Your task to perform on an android device: turn on bluetooth scan Image 0: 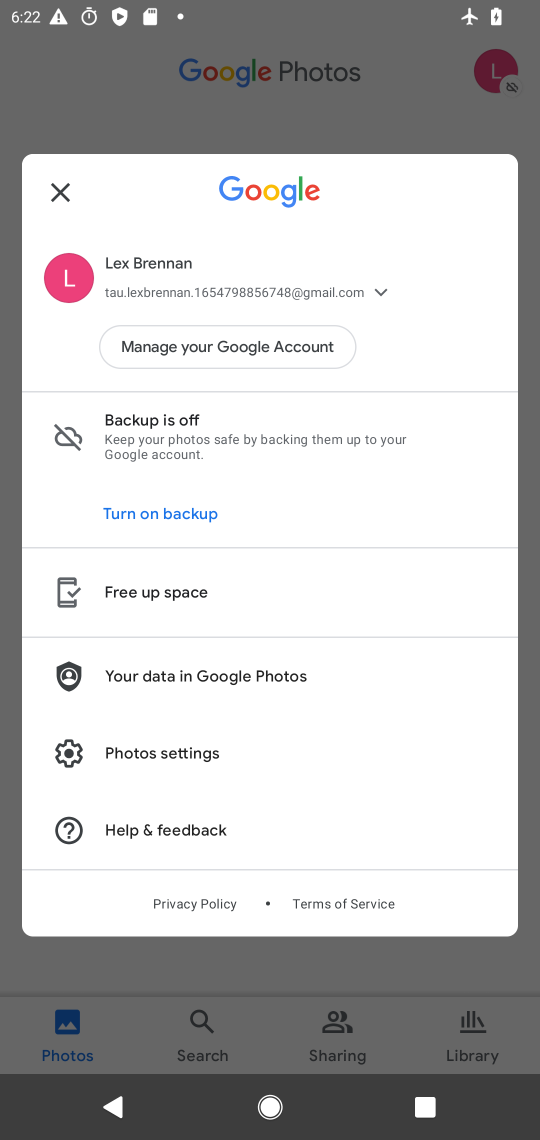
Step 0: press home button
Your task to perform on an android device: turn on bluetooth scan Image 1: 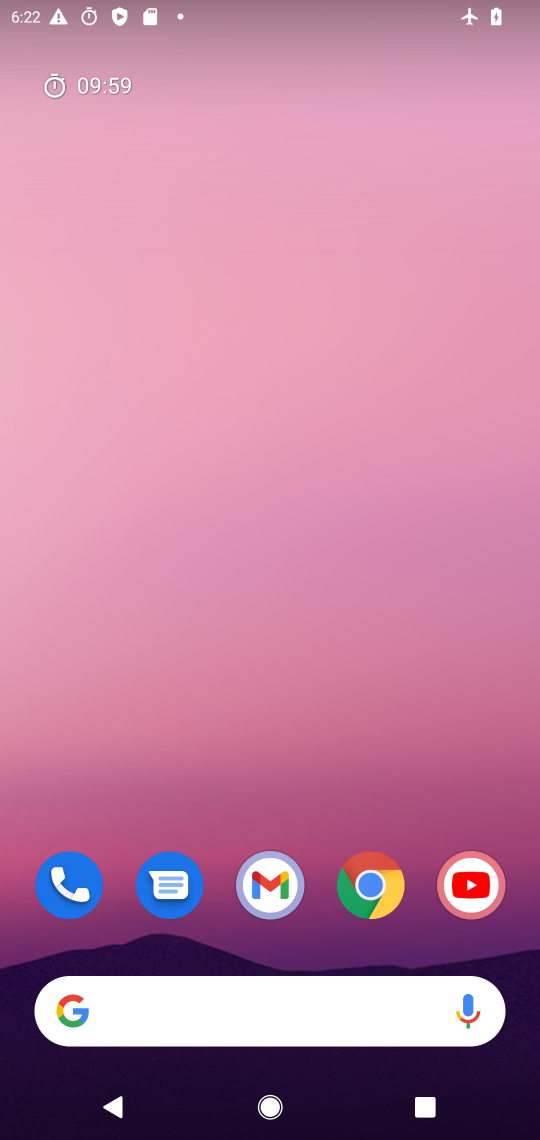
Step 1: drag from (273, 894) to (352, 194)
Your task to perform on an android device: turn on bluetooth scan Image 2: 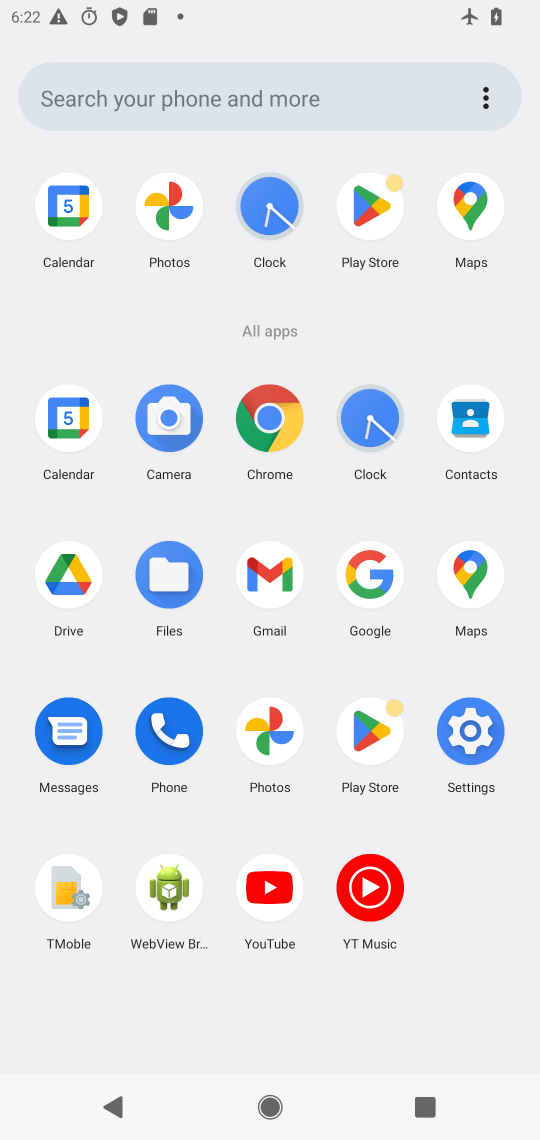
Step 2: click (482, 747)
Your task to perform on an android device: turn on bluetooth scan Image 3: 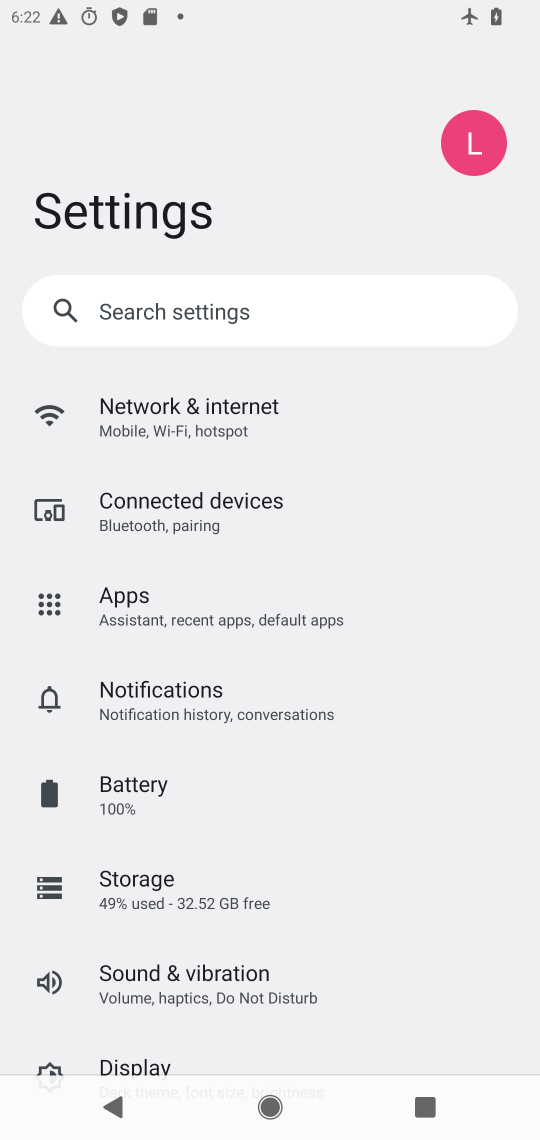
Step 3: drag from (191, 969) to (209, 513)
Your task to perform on an android device: turn on bluetooth scan Image 4: 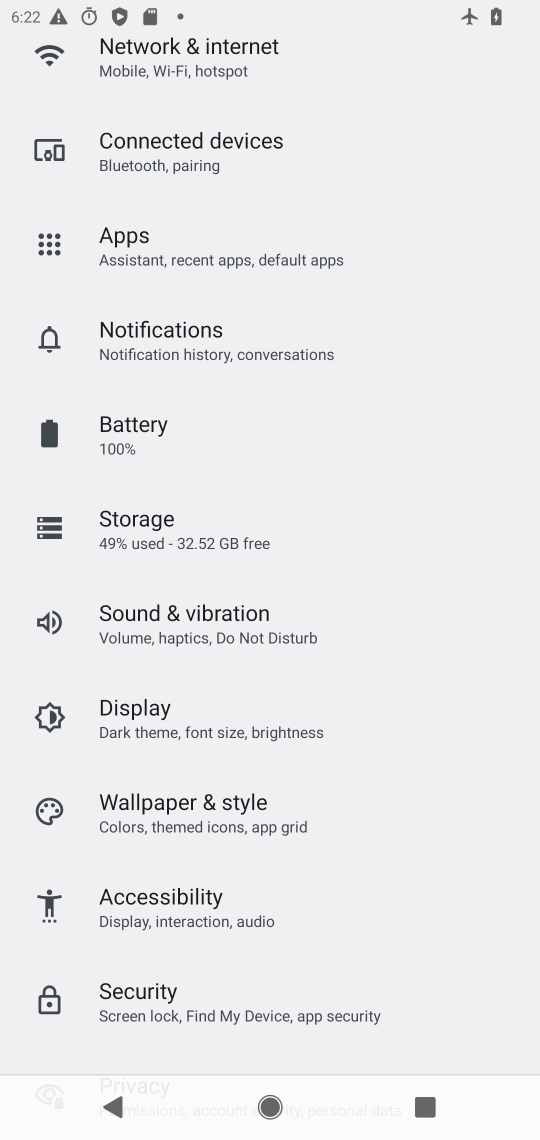
Step 4: drag from (220, 918) to (224, 521)
Your task to perform on an android device: turn on bluetooth scan Image 5: 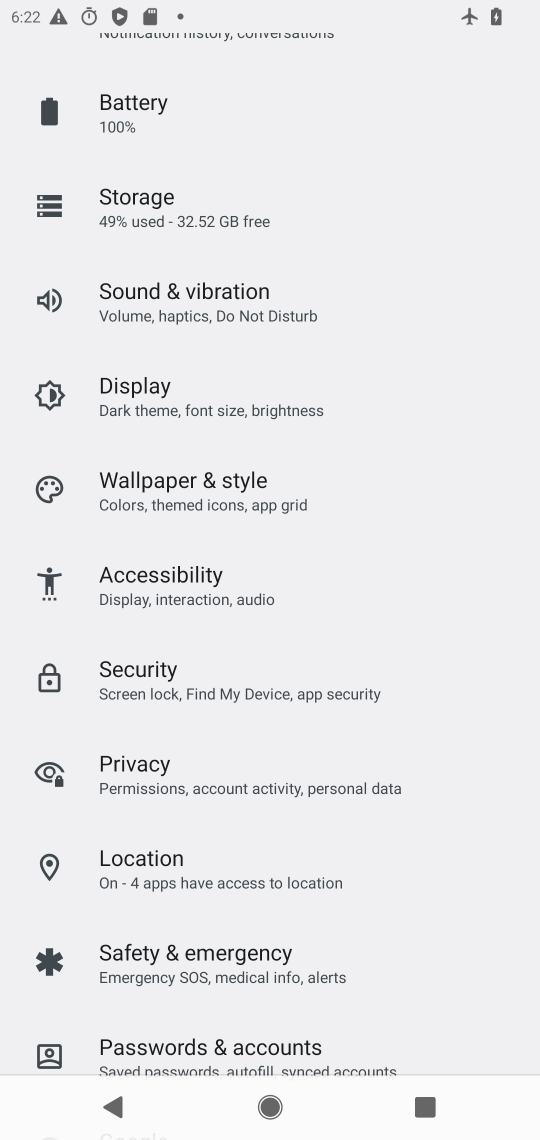
Step 5: click (168, 883)
Your task to perform on an android device: turn on bluetooth scan Image 6: 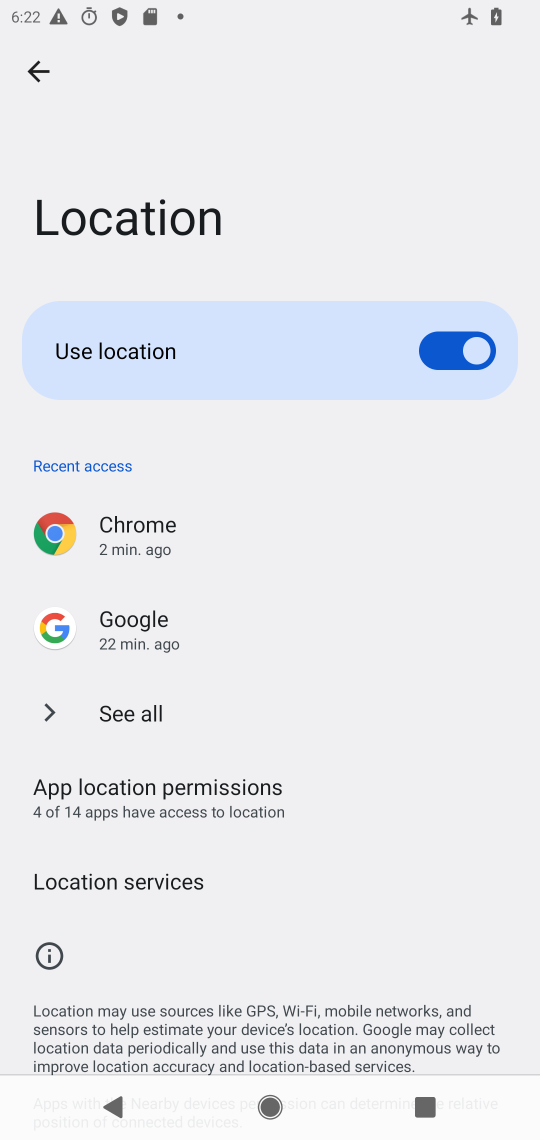
Step 6: click (128, 883)
Your task to perform on an android device: turn on bluetooth scan Image 7: 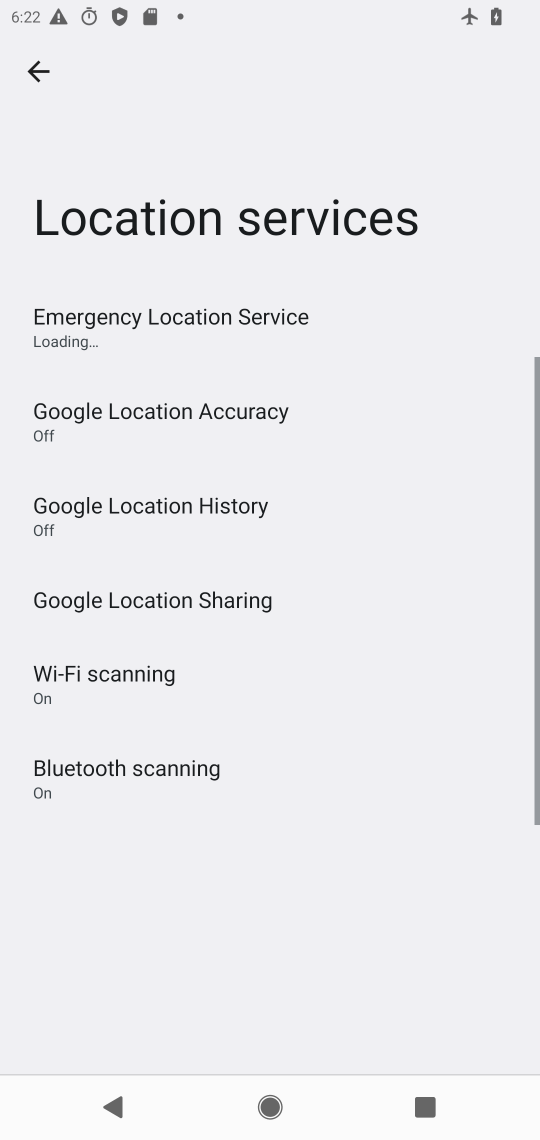
Step 7: click (154, 776)
Your task to perform on an android device: turn on bluetooth scan Image 8: 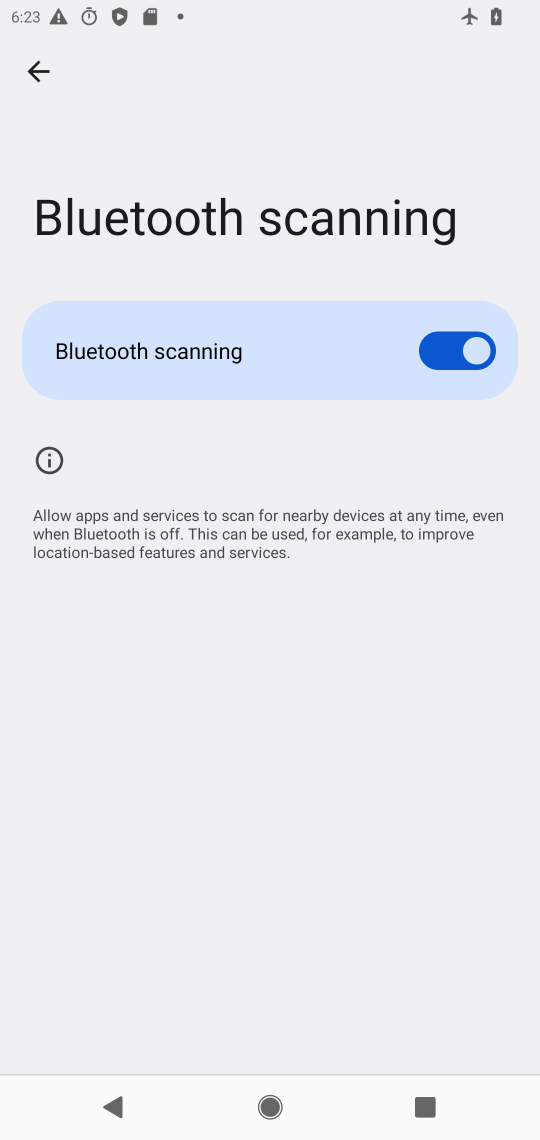
Step 8: task complete